Your task to perform on an android device: turn off wifi Image 0: 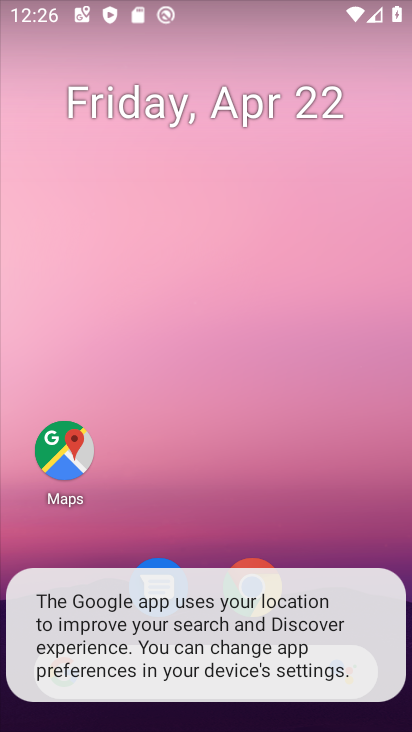
Step 0: press home button
Your task to perform on an android device: turn off wifi Image 1: 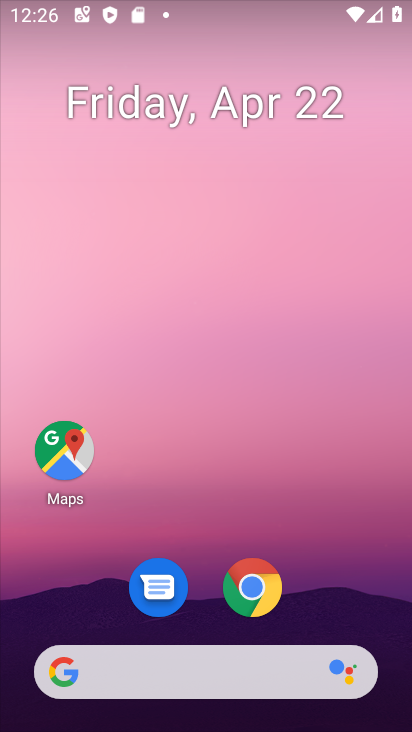
Step 1: drag from (196, 568) to (298, 32)
Your task to perform on an android device: turn off wifi Image 2: 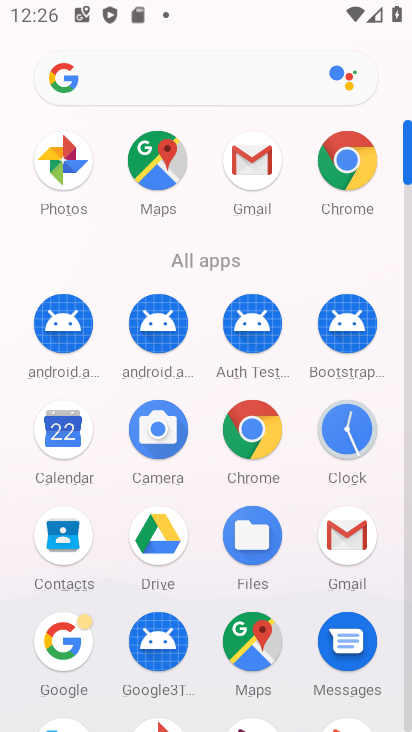
Step 2: drag from (122, 563) to (272, 128)
Your task to perform on an android device: turn off wifi Image 3: 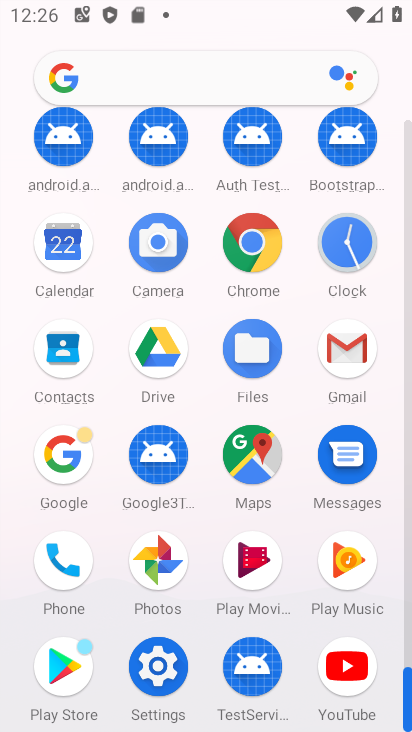
Step 3: click (165, 672)
Your task to perform on an android device: turn off wifi Image 4: 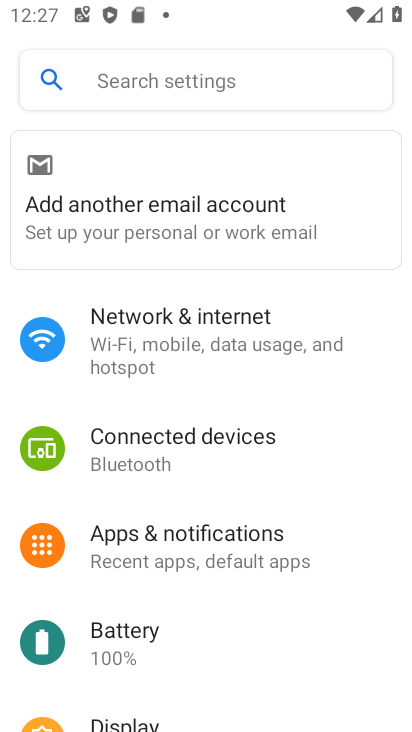
Step 4: click (249, 337)
Your task to perform on an android device: turn off wifi Image 5: 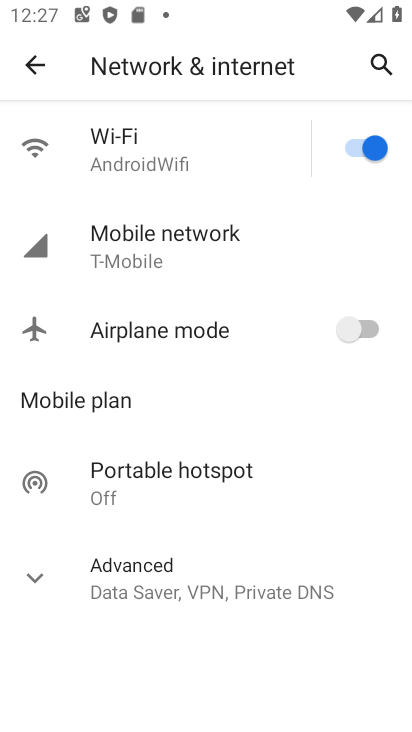
Step 5: click (358, 144)
Your task to perform on an android device: turn off wifi Image 6: 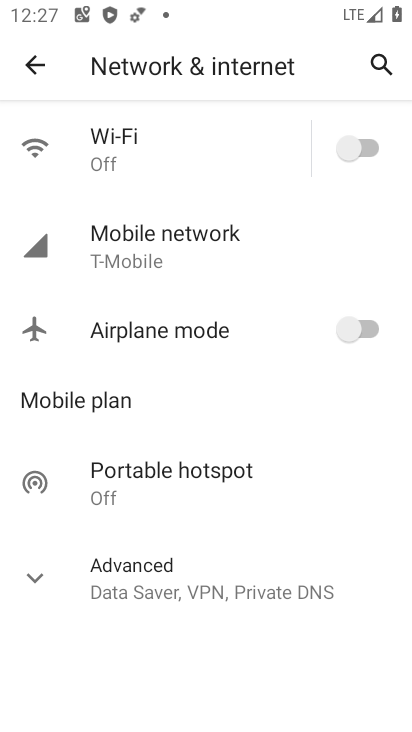
Step 6: task complete